Your task to perform on an android device: Open the phone app and click the voicemail tab. Image 0: 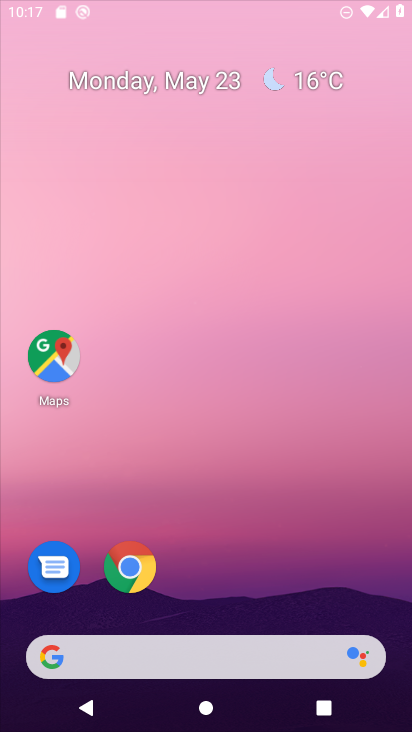
Step 0: click (330, 292)
Your task to perform on an android device: Open the phone app and click the voicemail tab. Image 1: 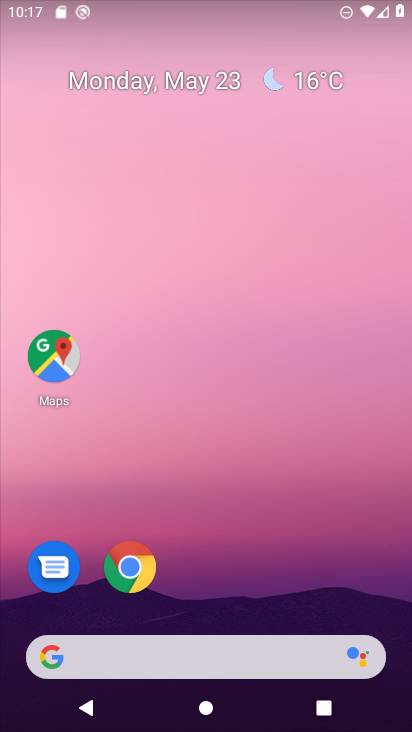
Step 1: drag from (189, 599) to (224, 28)
Your task to perform on an android device: Open the phone app and click the voicemail tab. Image 2: 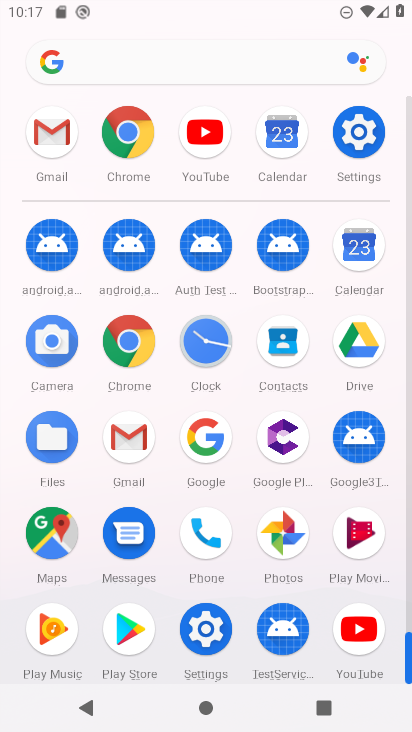
Step 2: click (200, 527)
Your task to perform on an android device: Open the phone app and click the voicemail tab. Image 3: 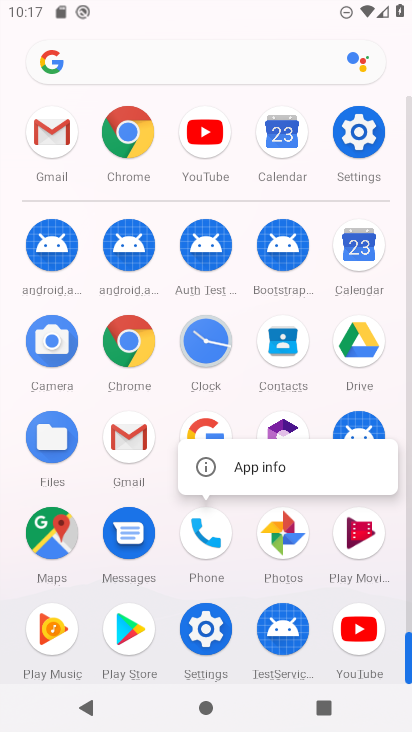
Step 3: click (263, 463)
Your task to perform on an android device: Open the phone app and click the voicemail tab. Image 4: 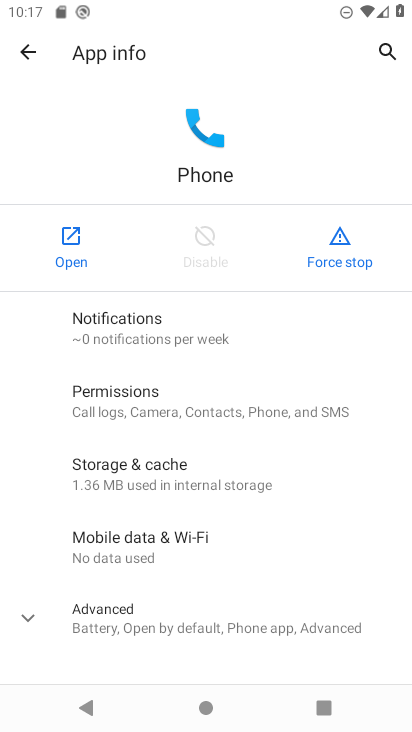
Step 4: click (65, 236)
Your task to perform on an android device: Open the phone app and click the voicemail tab. Image 5: 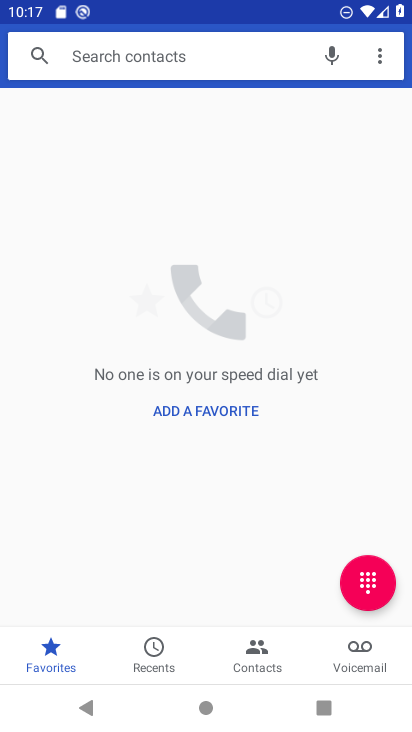
Step 5: click (365, 668)
Your task to perform on an android device: Open the phone app and click the voicemail tab. Image 6: 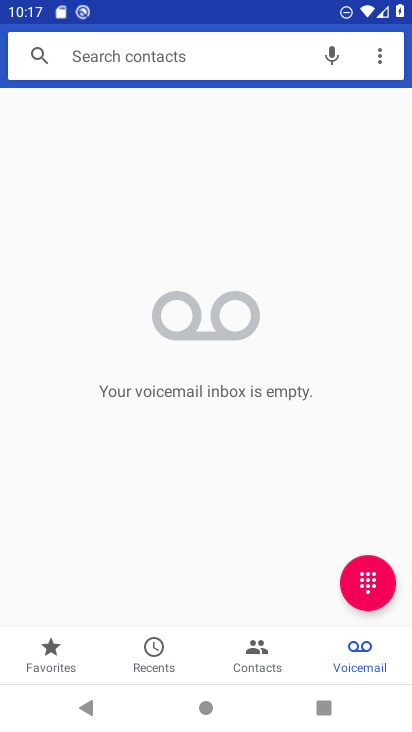
Step 6: task complete